Your task to perform on an android device: check google app version Image 0: 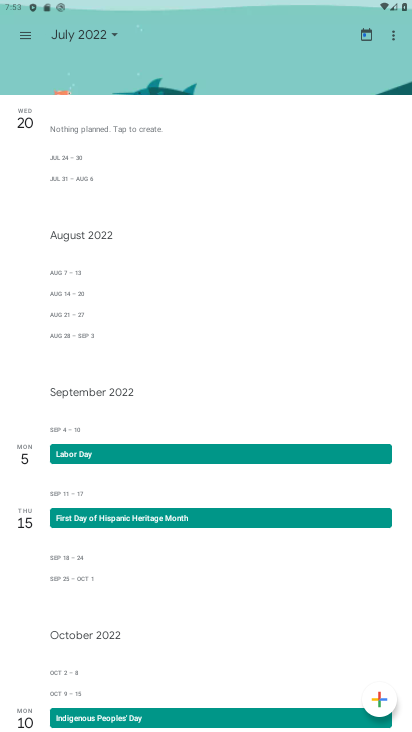
Step 0: press home button
Your task to perform on an android device: check google app version Image 1: 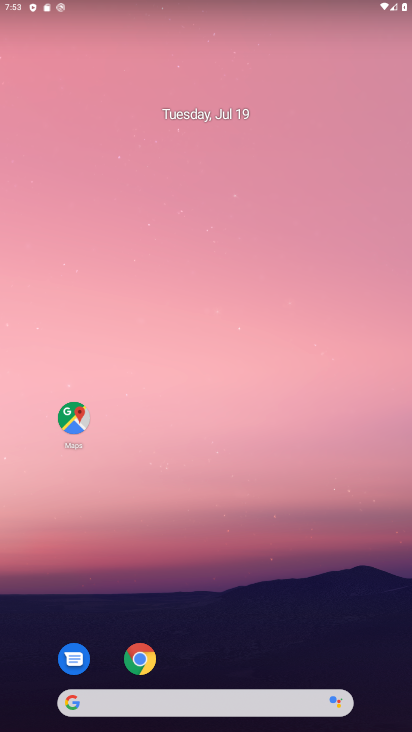
Step 1: drag from (221, 644) to (274, 88)
Your task to perform on an android device: check google app version Image 2: 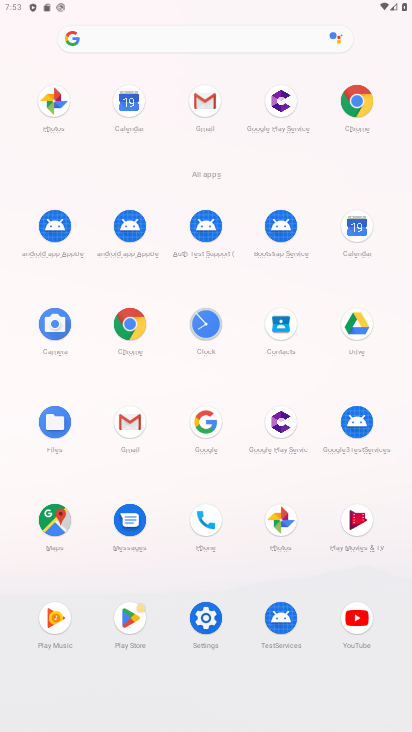
Step 2: click (199, 415)
Your task to perform on an android device: check google app version Image 3: 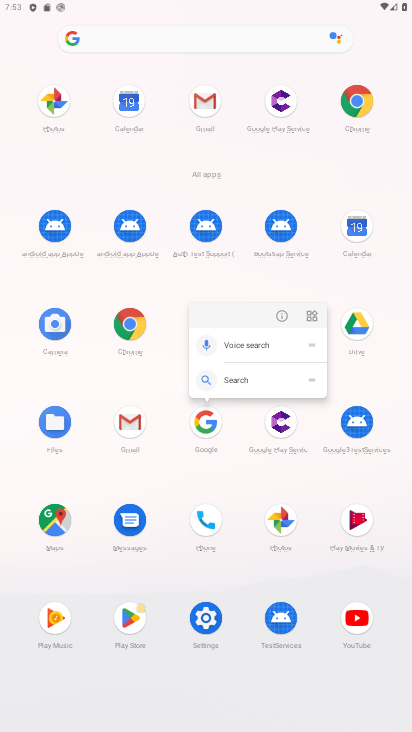
Step 3: click (281, 316)
Your task to perform on an android device: check google app version Image 4: 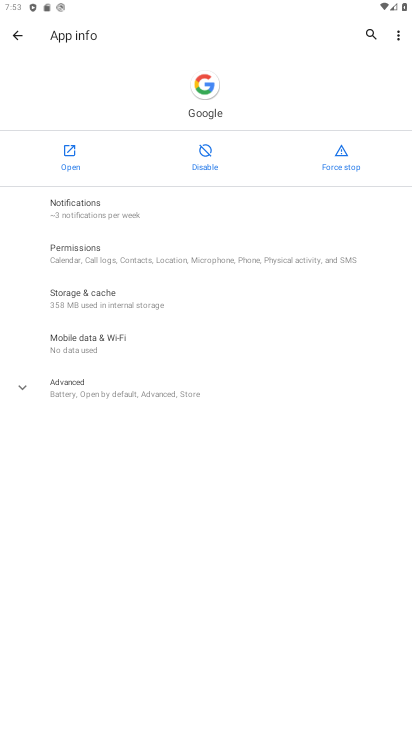
Step 4: click (70, 388)
Your task to perform on an android device: check google app version Image 5: 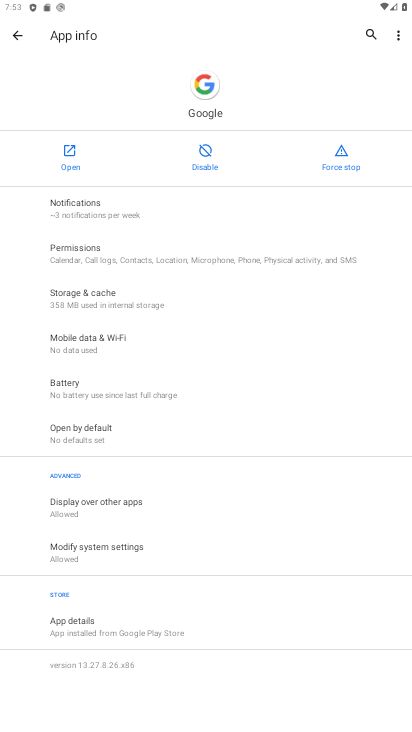
Step 5: task complete